Your task to perform on an android device: Open Maps and search for coffee Image 0: 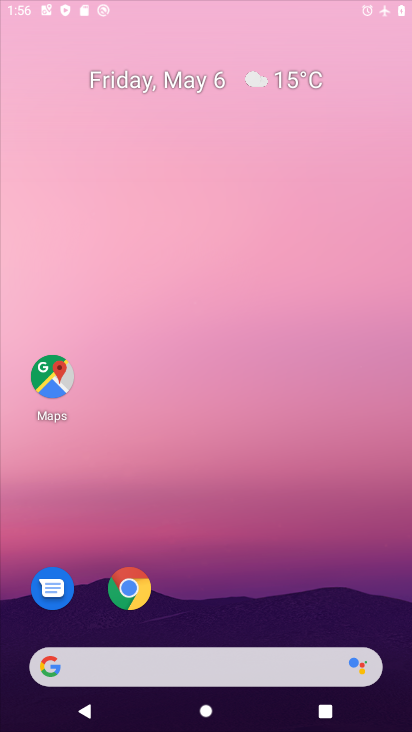
Step 0: click (283, 169)
Your task to perform on an android device: Open Maps and search for coffee Image 1: 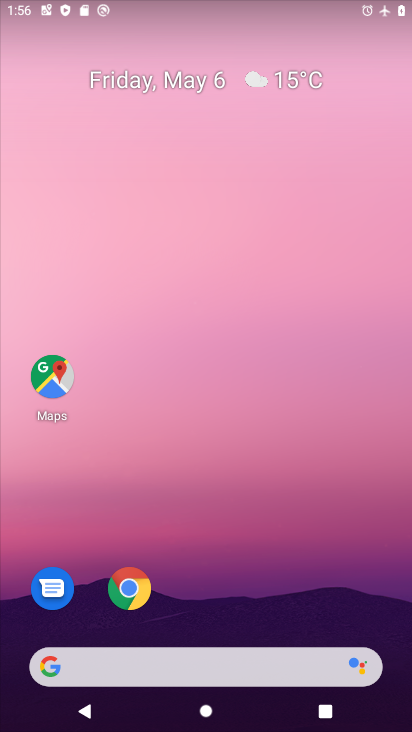
Step 1: drag from (181, 548) to (251, 169)
Your task to perform on an android device: Open Maps and search for coffee Image 2: 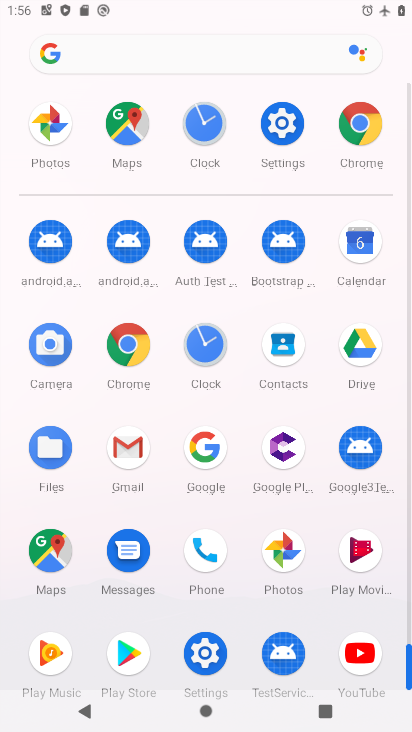
Step 2: click (63, 554)
Your task to perform on an android device: Open Maps and search for coffee Image 3: 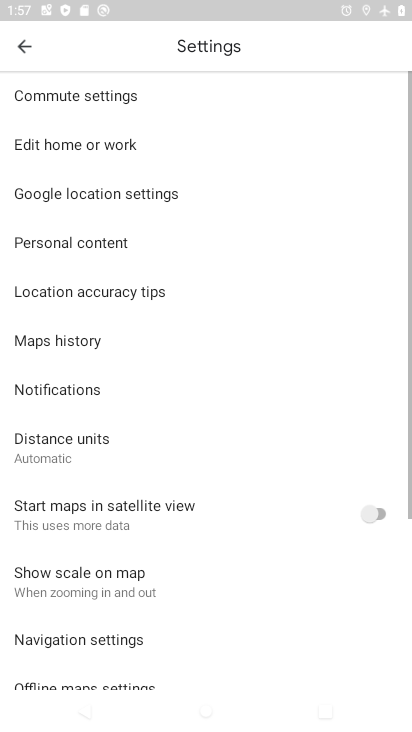
Step 3: drag from (181, 556) to (181, 352)
Your task to perform on an android device: Open Maps and search for coffee Image 4: 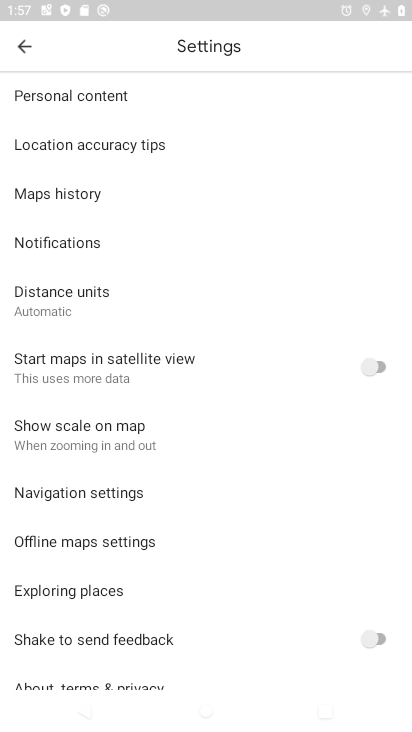
Step 4: drag from (131, 572) to (187, 217)
Your task to perform on an android device: Open Maps and search for coffee Image 5: 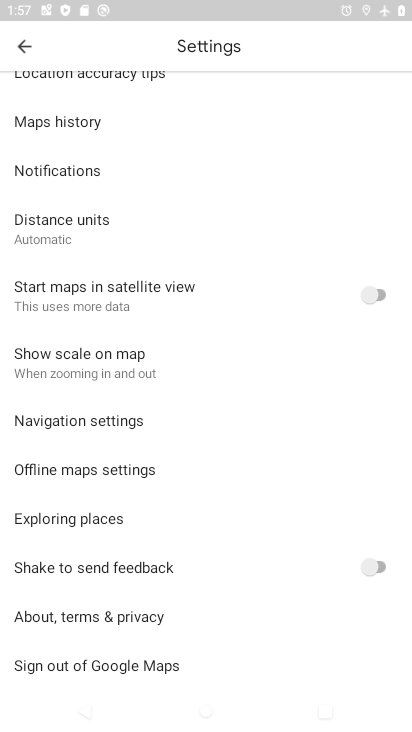
Step 5: drag from (162, 655) to (223, 140)
Your task to perform on an android device: Open Maps and search for coffee Image 6: 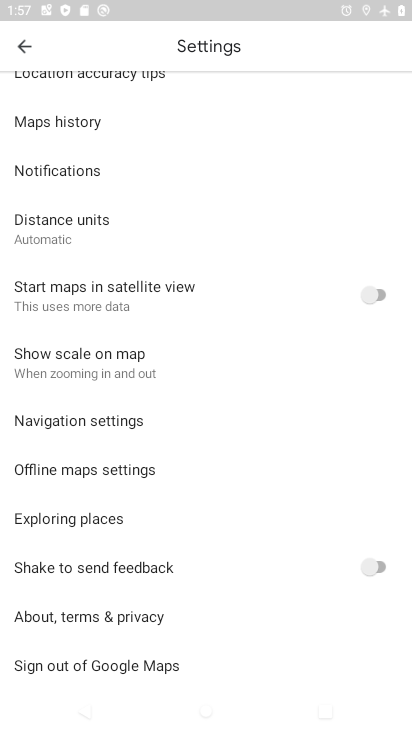
Step 6: drag from (152, 563) to (172, 317)
Your task to perform on an android device: Open Maps and search for coffee Image 7: 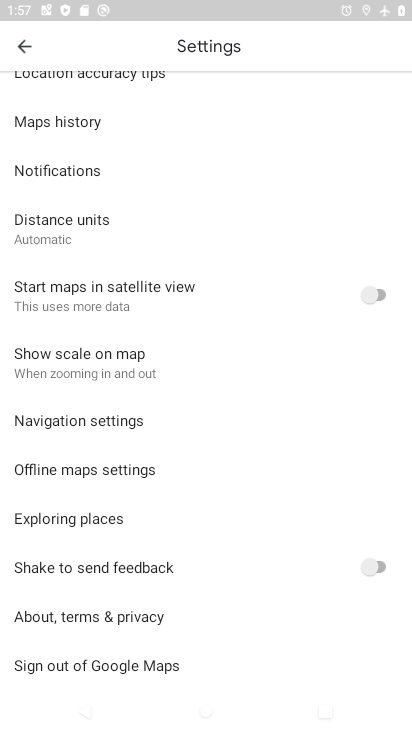
Step 7: drag from (277, 306) to (261, 725)
Your task to perform on an android device: Open Maps and search for coffee Image 8: 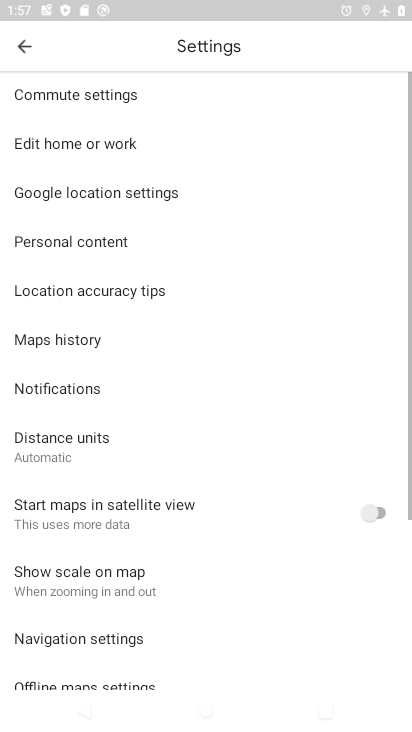
Step 8: click (17, 35)
Your task to perform on an android device: Open Maps and search for coffee Image 9: 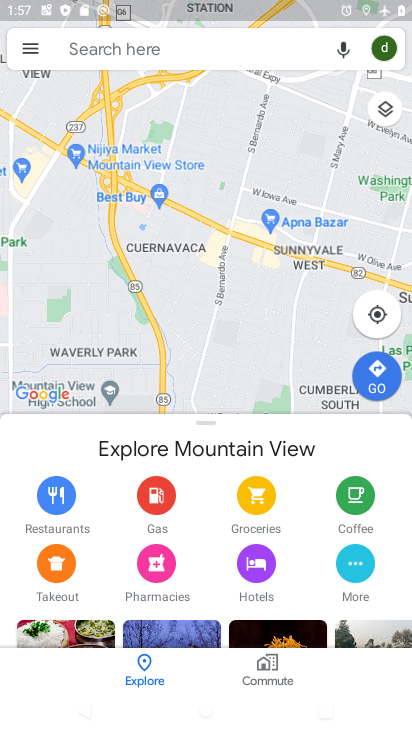
Step 9: click (110, 56)
Your task to perform on an android device: Open Maps and search for coffee Image 10: 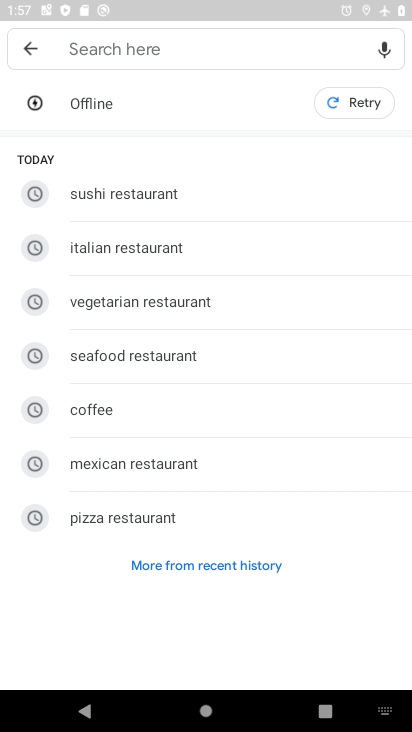
Step 10: click (125, 396)
Your task to perform on an android device: Open Maps and search for coffee Image 11: 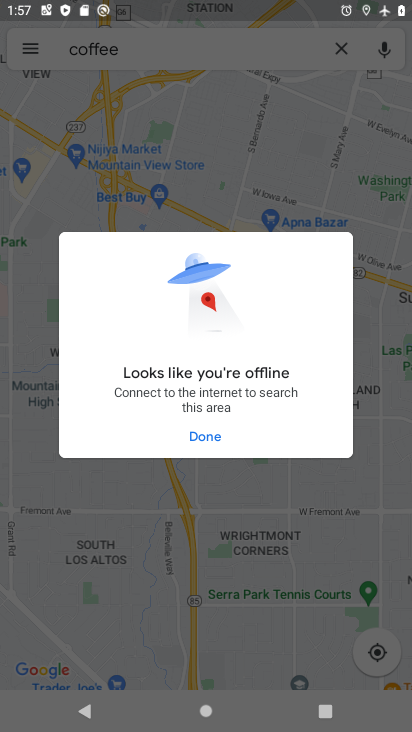
Step 11: click (197, 434)
Your task to perform on an android device: Open Maps and search for coffee Image 12: 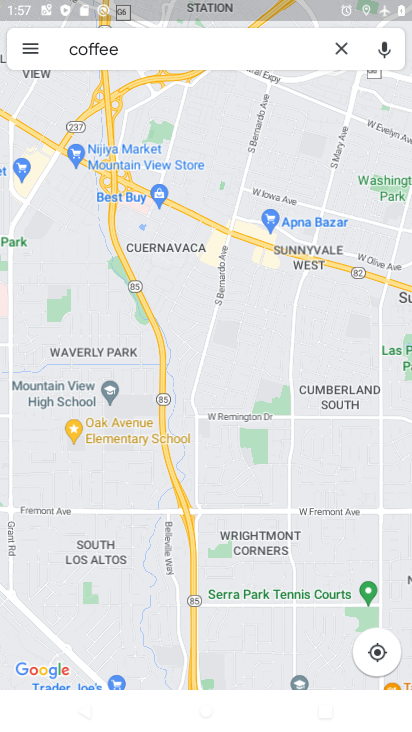
Step 12: task complete